Your task to perform on an android device: Show me productivity apps on the Play Store Image 0: 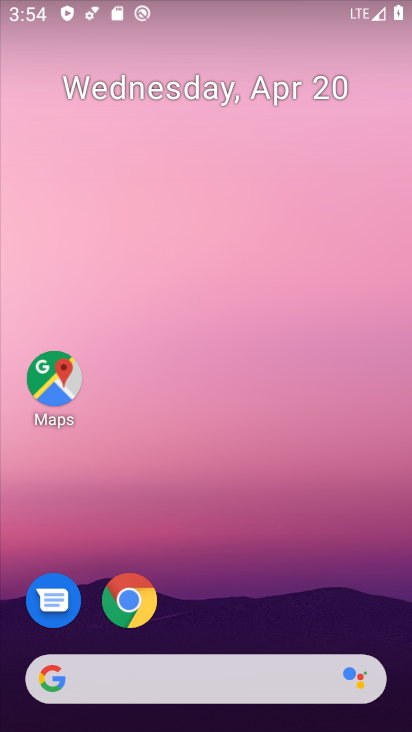
Step 0: drag from (283, 607) to (232, 146)
Your task to perform on an android device: Show me productivity apps on the Play Store Image 1: 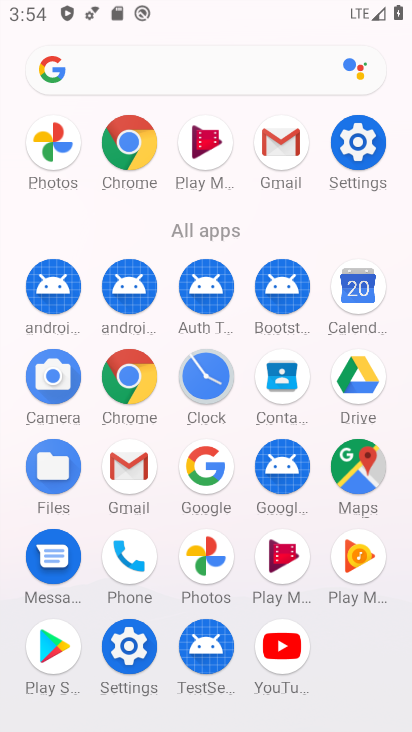
Step 1: click (55, 639)
Your task to perform on an android device: Show me productivity apps on the Play Store Image 2: 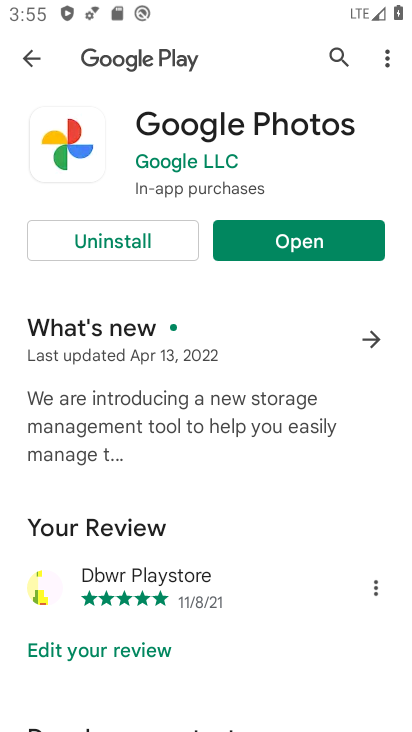
Step 2: click (31, 65)
Your task to perform on an android device: Show me productivity apps on the Play Store Image 3: 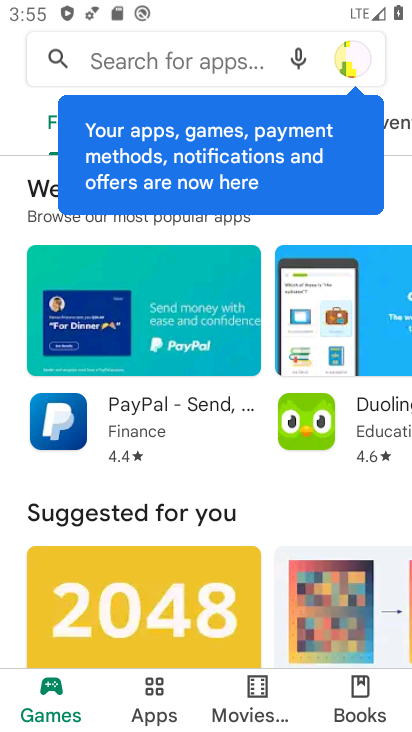
Step 3: task complete